Your task to perform on an android device: open wifi settings Image 0: 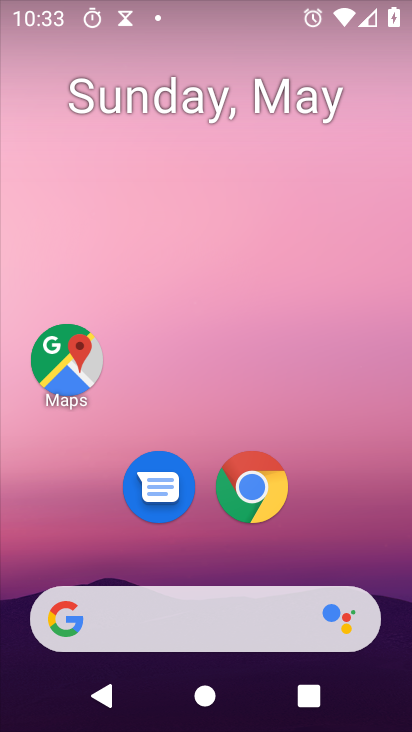
Step 0: drag from (354, 497) to (403, 66)
Your task to perform on an android device: open wifi settings Image 1: 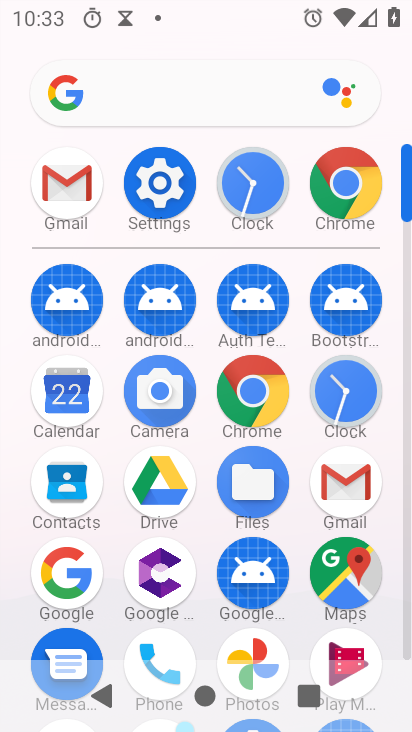
Step 1: click (164, 176)
Your task to perform on an android device: open wifi settings Image 2: 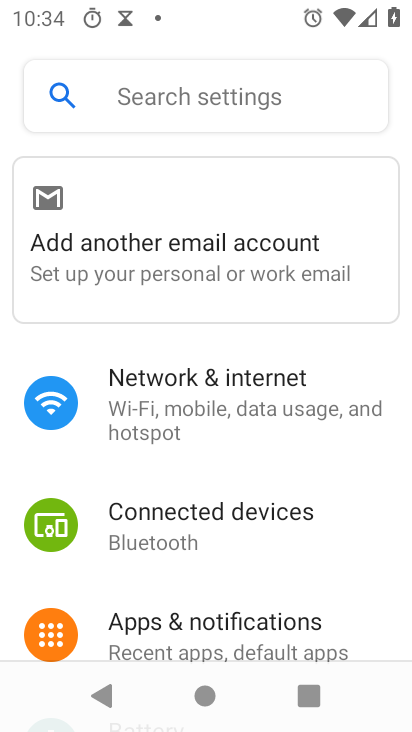
Step 2: click (225, 392)
Your task to perform on an android device: open wifi settings Image 3: 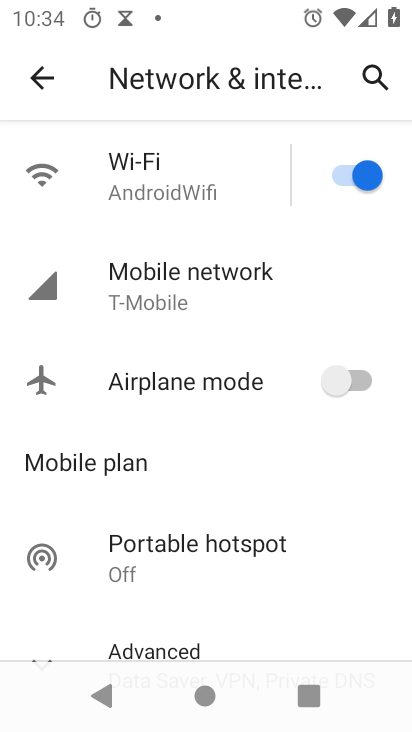
Step 3: click (208, 157)
Your task to perform on an android device: open wifi settings Image 4: 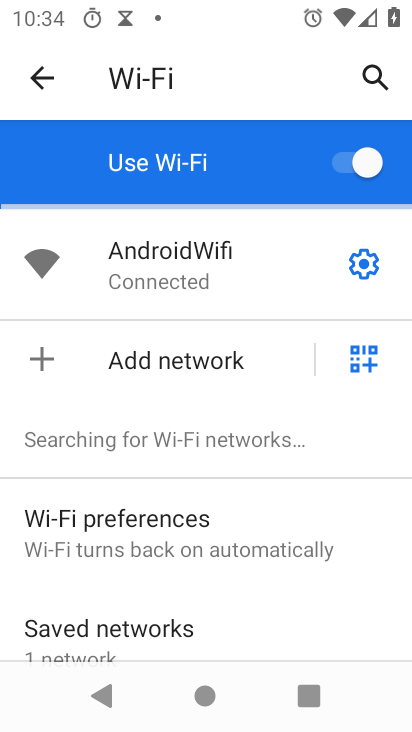
Step 4: task complete